Your task to perform on an android device: Play the last video I watched on Youtube Image 0: 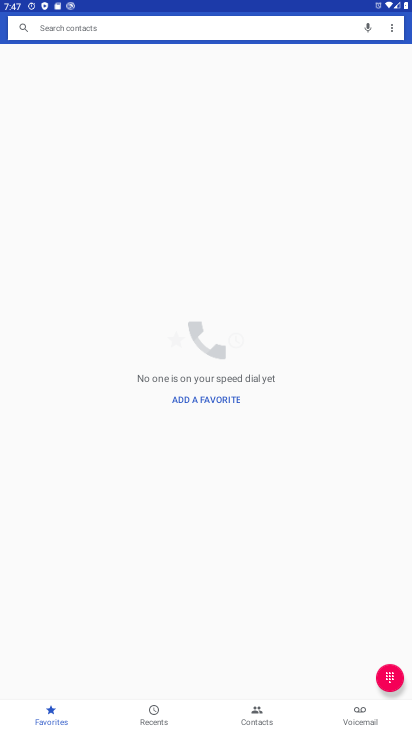
Step 0: press home button
Your task to perform on an android device: Play the last video I watched on Youtube Image 1: 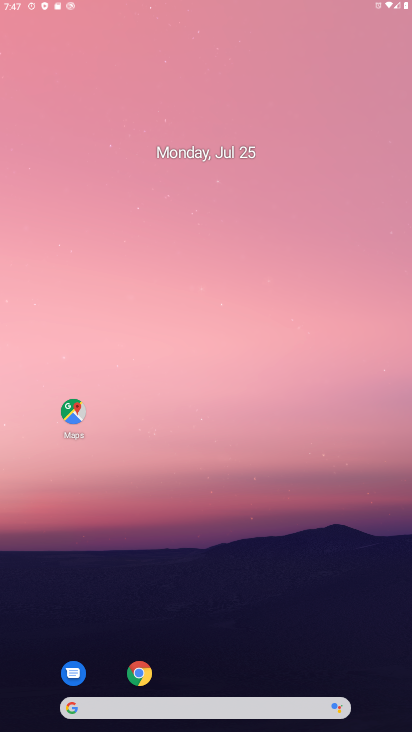
Step 1: drag from (383, 634) to (277, 37)
Your task to perform on an android device: Play the last video I watched on Youtube Image 2: 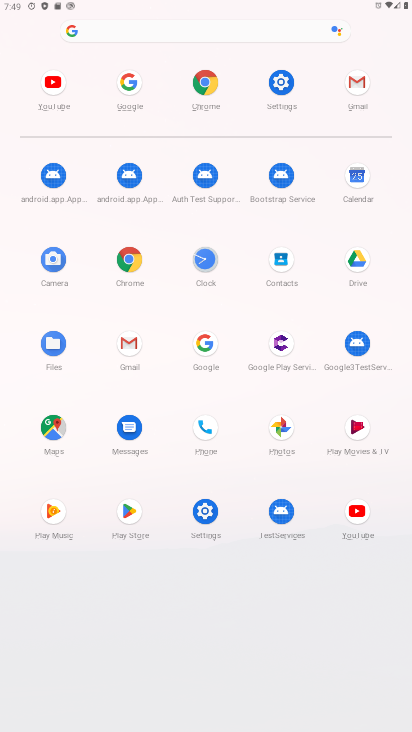
Step 2: click (357, 513)
Your task to perform on an android device: Play the last video I watched on Youtube Image 3: 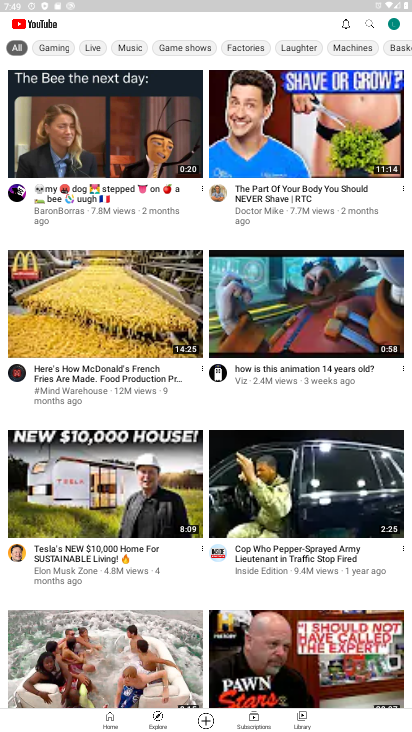
Step 3: task complete